Your task to perform on an android device: add a contact in the contacts app Image 0: 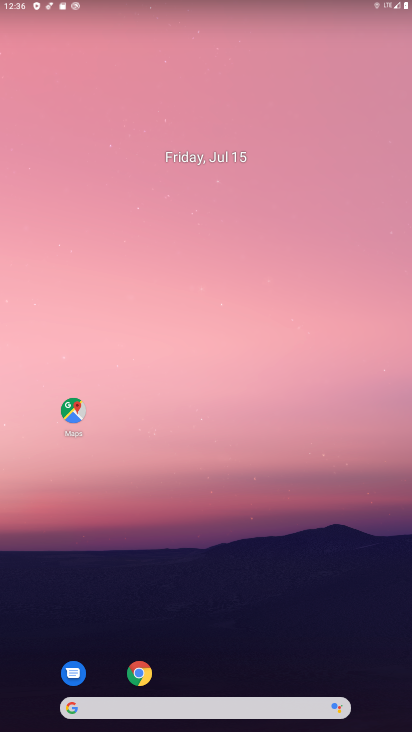
Step 0: drag from (390, 691) to (305, 163)
Your task to perform on an android device: add a contact in the contacts app Image 1: 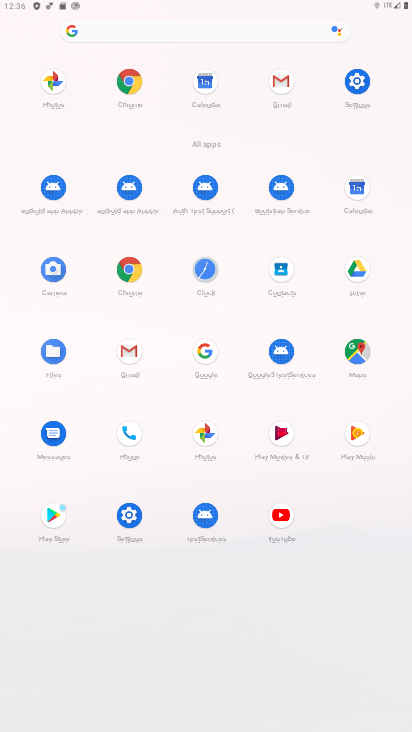
Step 1: click (277, 271)
Your task to perform on an android device: add a contact in the contacts app Image 2: 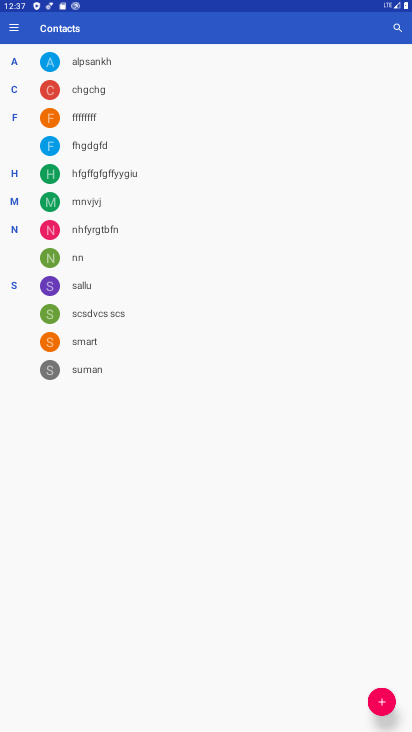
Step 2: press home button
Your task to perform on an android device: add a contact in the contacts app Image 3: 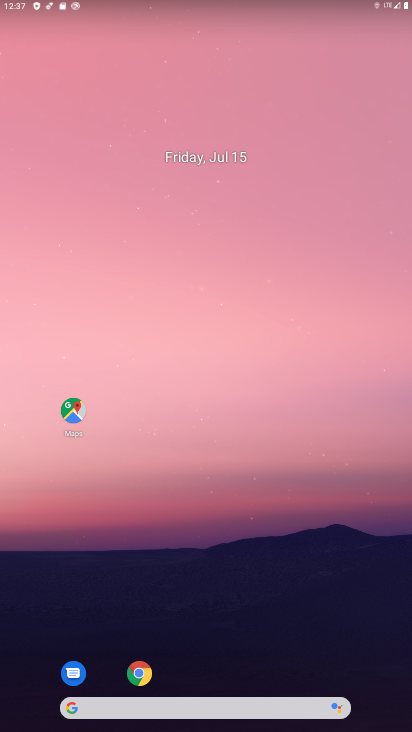
Step 3: drag from (378, 716) to (313, 183)
Your task to perform on an android device: add a contact in the contacts app Image 4: 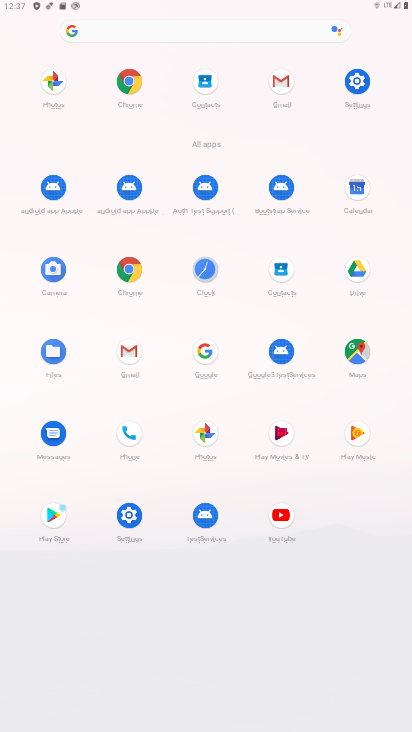
Step 4: click (277, 269)
Your task to perform on an android device: add a contact in the contacts app Image 5: 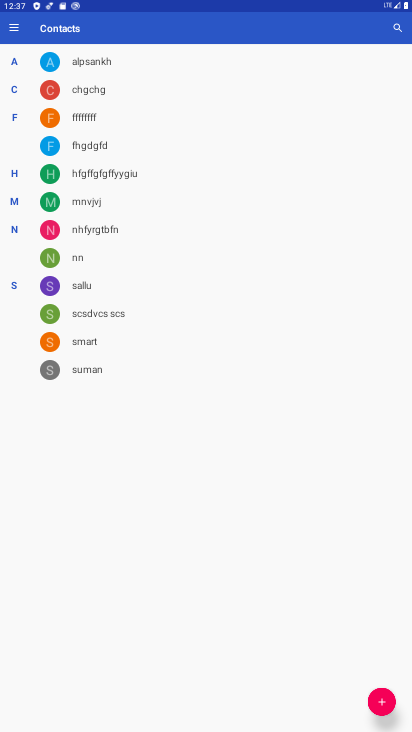
Step 5: click (378, 704)
Your task to perform on an android device: add a contact in the contacts app Image 6: 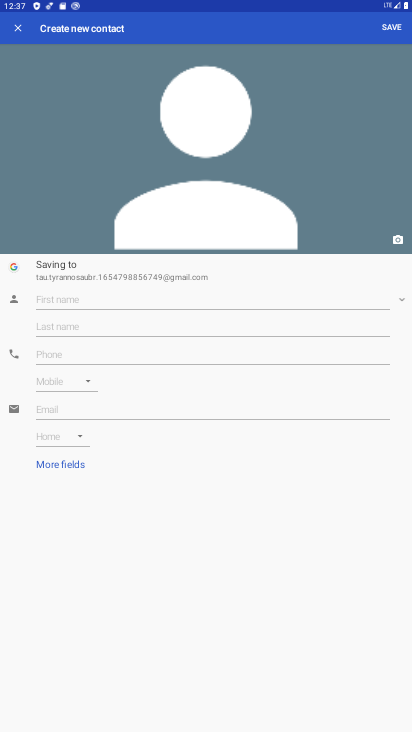
Step 6: click (60, 295)
Your task to perform on an android device: add a contact in the contacts app Image 7: 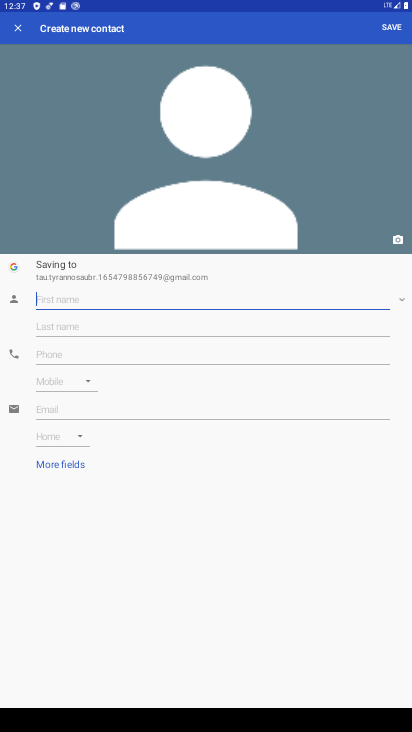
Step 7: type "ffgndfmgfghhg"
Your task to perform on an android device: add a contact in the contacts app Image 8: 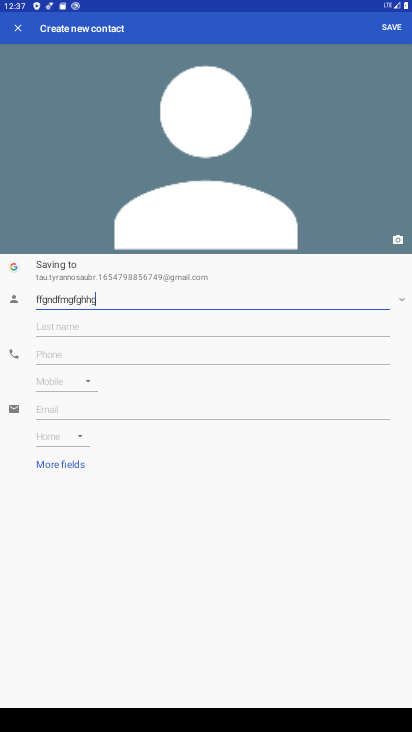
Step 8: click (120, 321)
Your task to perform on an android device: add a contact in the contacts app Image 9: 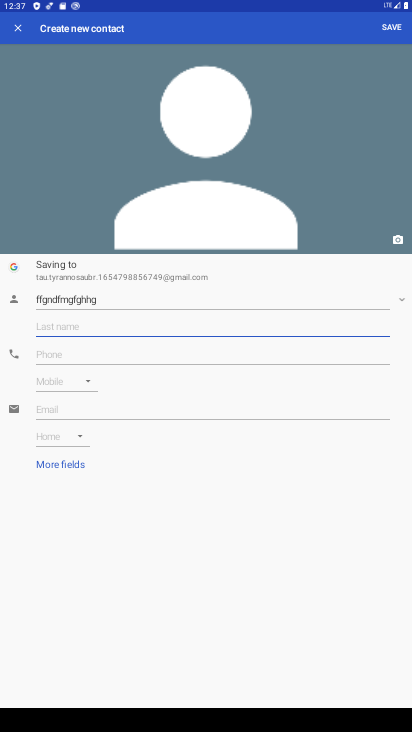
Step 9: type "ytudghjg"
Your task to perform on an android device: add a contact in the contacts app Image 10: 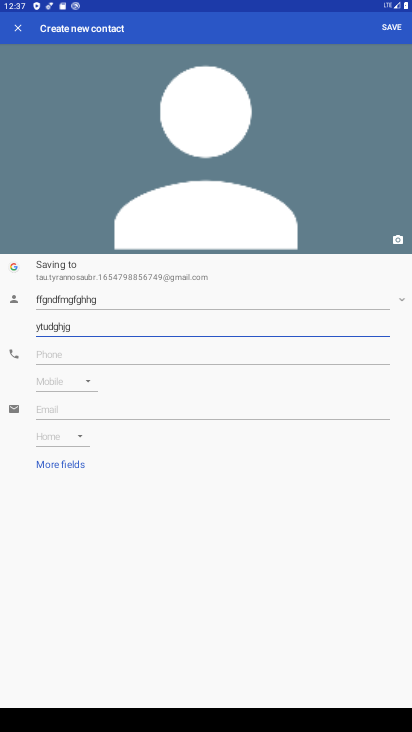
Step 10: click (116, 355)
Your task to perform on an android device: add a contact in the contacts app Image 11: 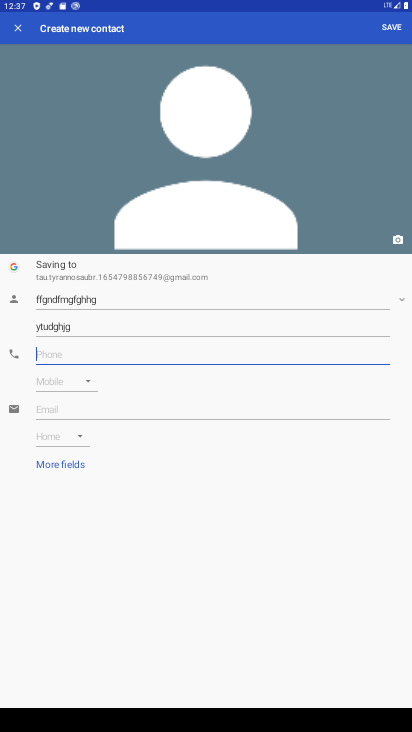
Step 11: type "674745638476"
Your task to perform on an android device: add a contact in the contacts app Image 12: 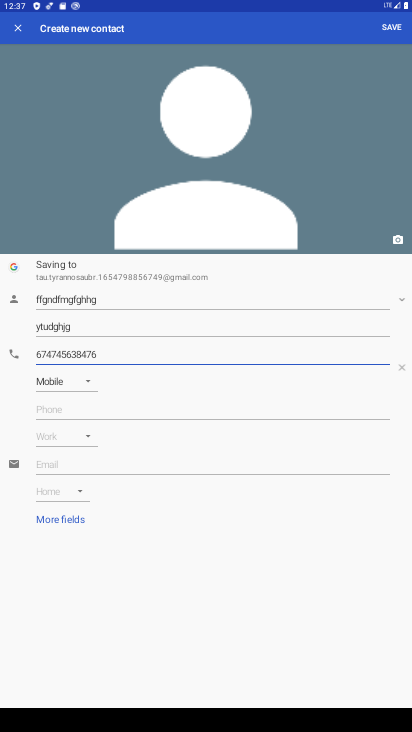
Step 12: task complete